Your task to perform on an android device: see tabs open on other devices in the chrome app Image 0: 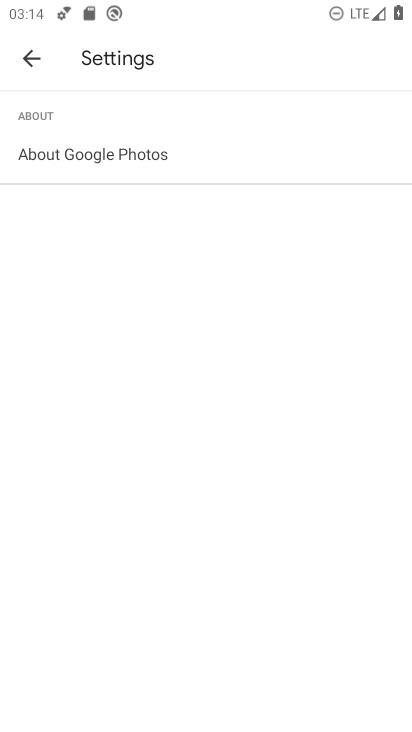
Step 0: press home button
Your task to perform on an android device: see tabs open on other devices in the chrome app Image 1: 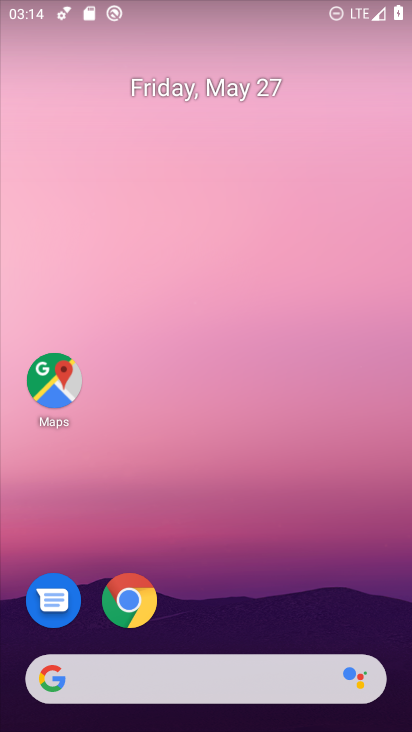
Step 1: click (116, 609)
Your task to perform on an android device: see tabs open on other devices in the chrome app Image 2: 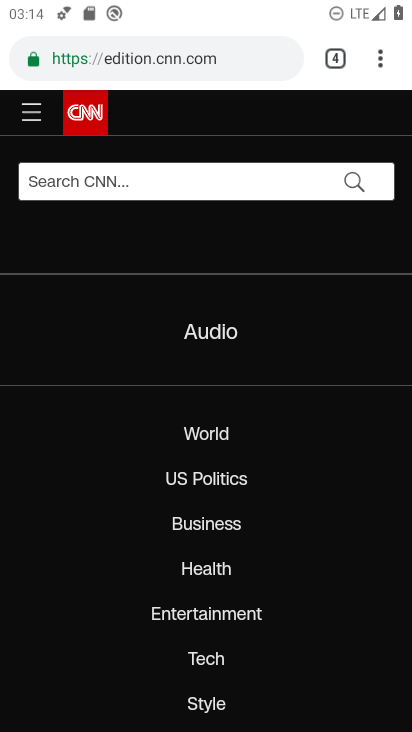
Step 2: click (381, 61)
Your task to perform on an android device: see tabs open on other devices in the chrome app Image 3: 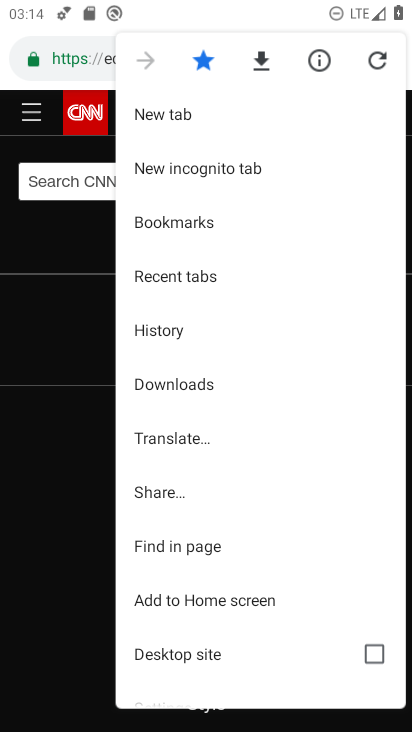
Step 3: click (180, 276)
Your task to perform on an android device: see tabs open on other devices in the chrome app Image 4: 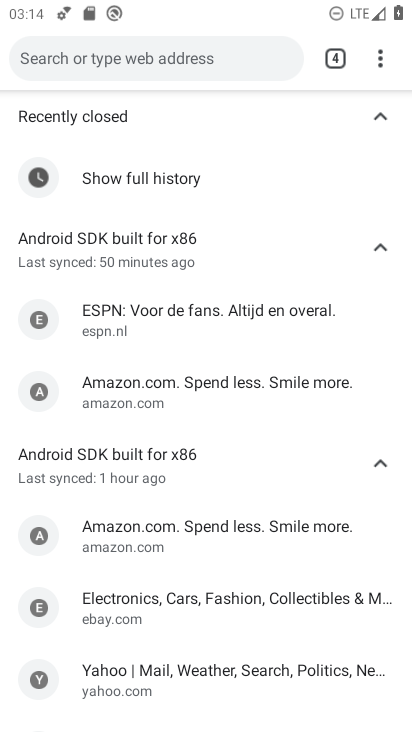
Step 4: task complete